Your task to perform on an android device: refresh tabs in the chrome app Image 0: 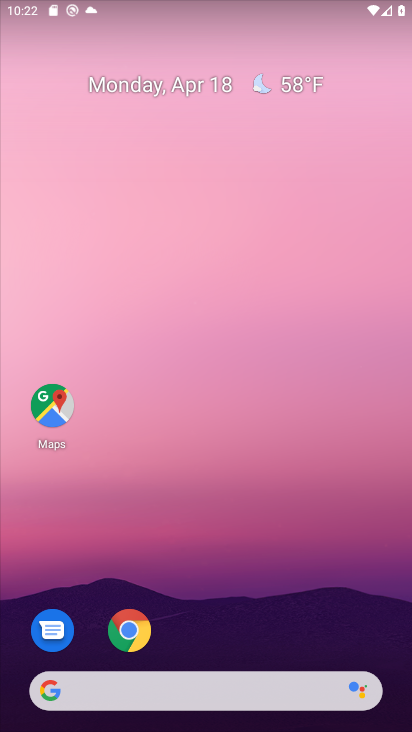
Step 0: click (139, 624)
Your task to perform on an android device: refresh tabs in the chrome app Image 1: 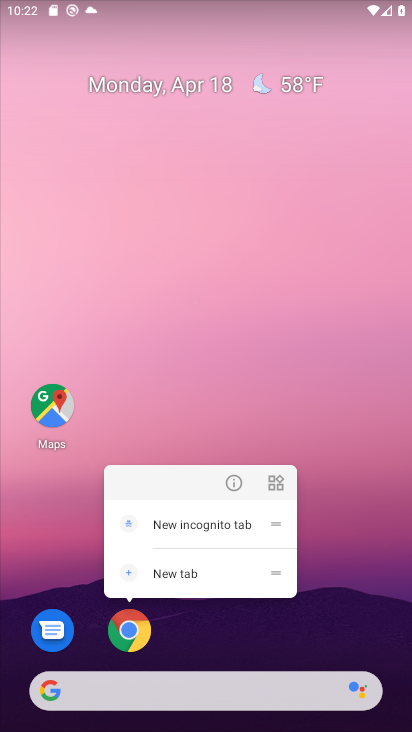
Step 1: click (129, 625)
Your task to perform on an android device: refresh tabs in the chrome app Image 2: 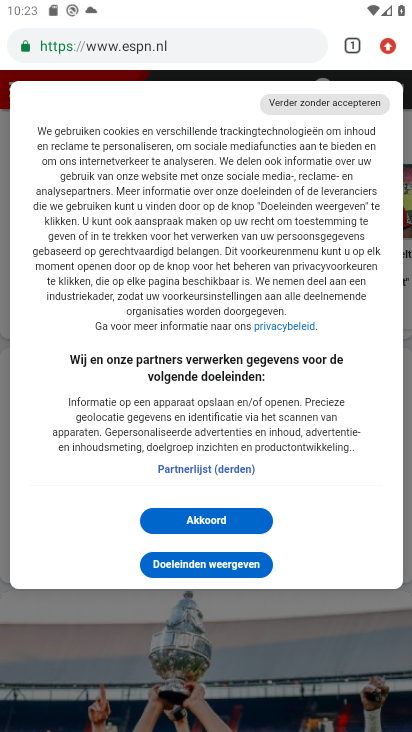
Step 2: click (386, 51)
Your task to perform on an android device: refresh tabs in the chrome app Image 3: 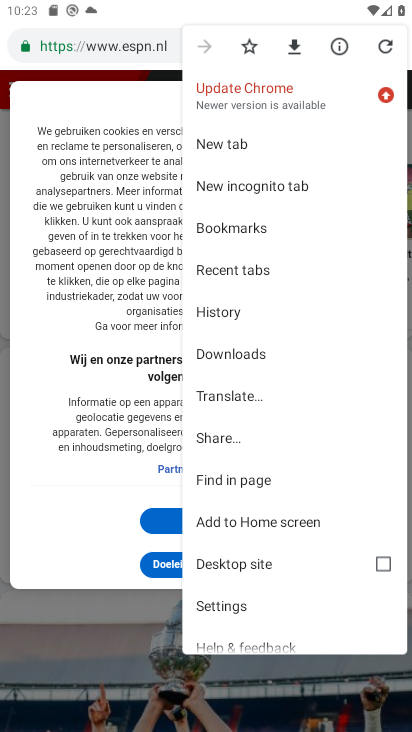
Step 3: click (385, 45)
Your task to perform on an android device: refresh tabs in the chrome app Image 4: 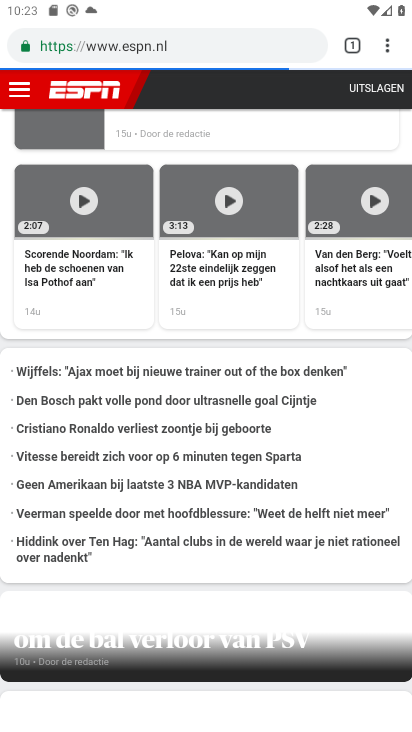
Step 4: click (385, 45)
Your task to perform on an android device: refresh tabs in the chrome app Image 5: 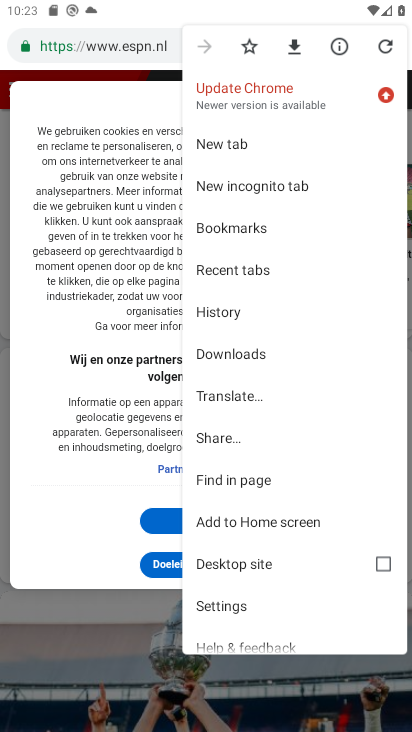
Step 5: click (382, 45)
Your task to perform on an android device: refresh tabs in the chrome app Image 6: 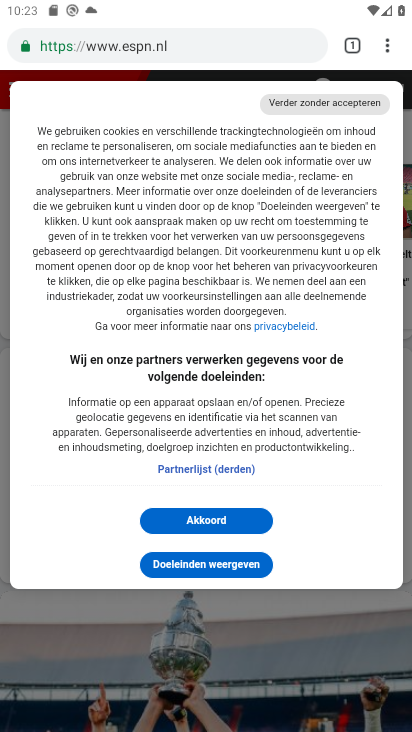
Step 6: click (355, 44)
Your task to perform on an android device: refresh tabs in the chrome app Image 7: 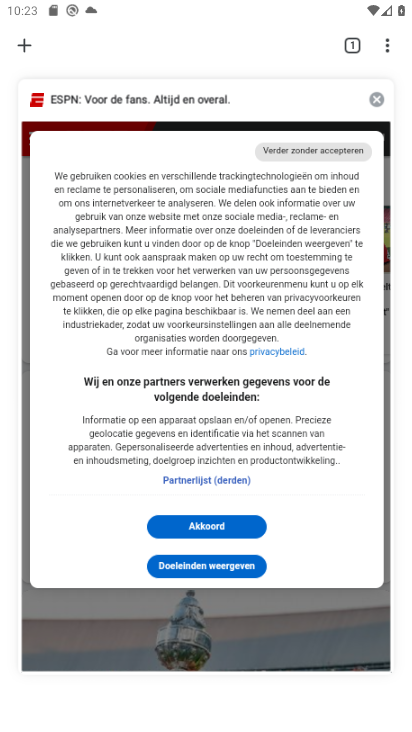
Step 7: drag from (353, 310) to (0, 202)
Your task to perform on an android device: refresh tabs in the chrome app Image 8: 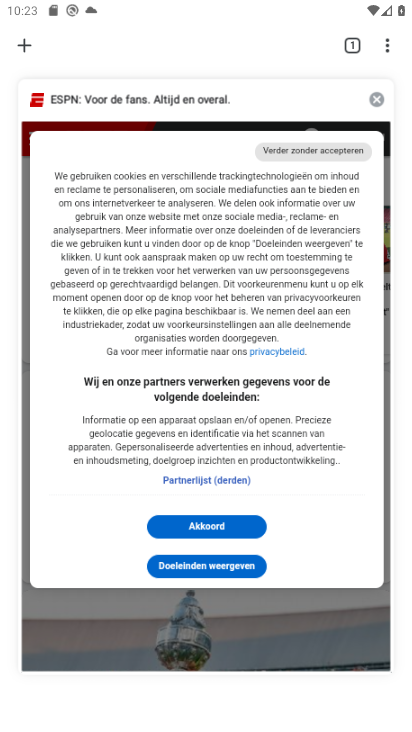
Step 8: click (377, 95)
Your task to perform on an android device: refresh tabs in the chrome app Image 9: 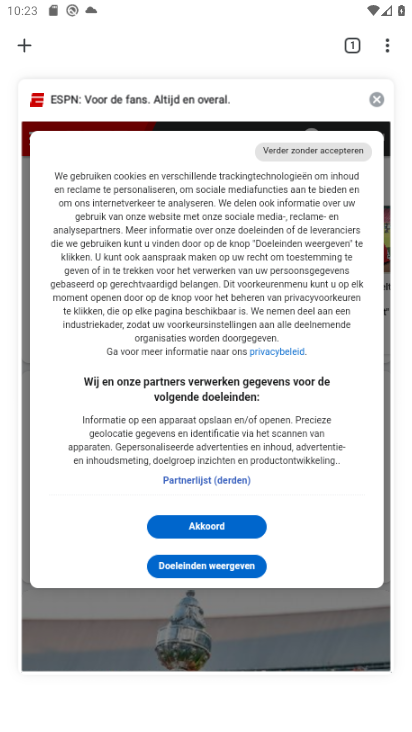
Step 9: click (377, 96)
Your task to perform on an android device: refresh tabs in the chrome app Image 10: 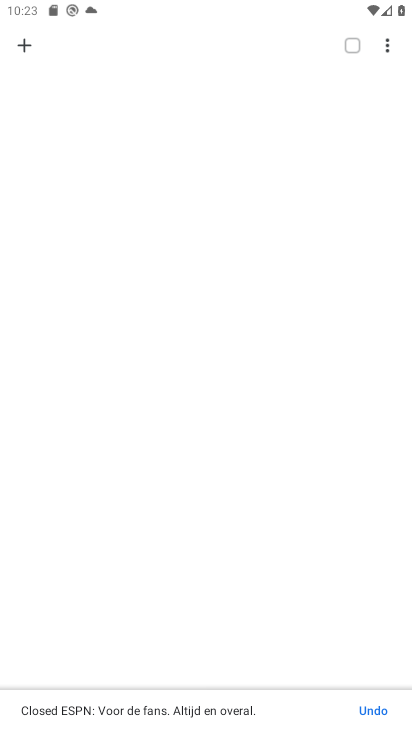
Step 10: click (27, 43)
Your task to perform on an android device: refresh tabs in the chrome app Image 11: 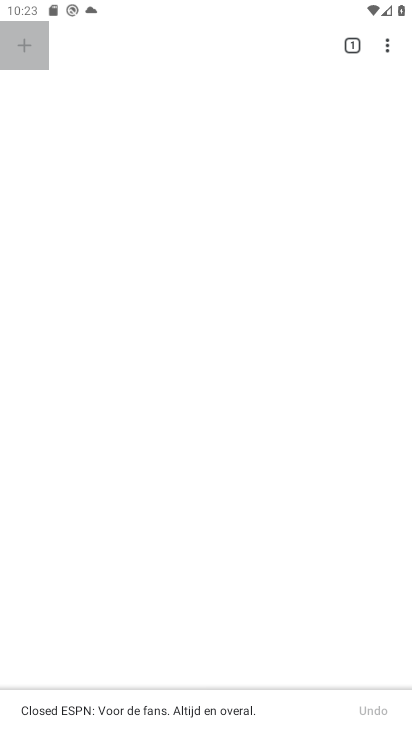
Step 11: task complete